Your task to perform on an android device: check out phone information Image 0: 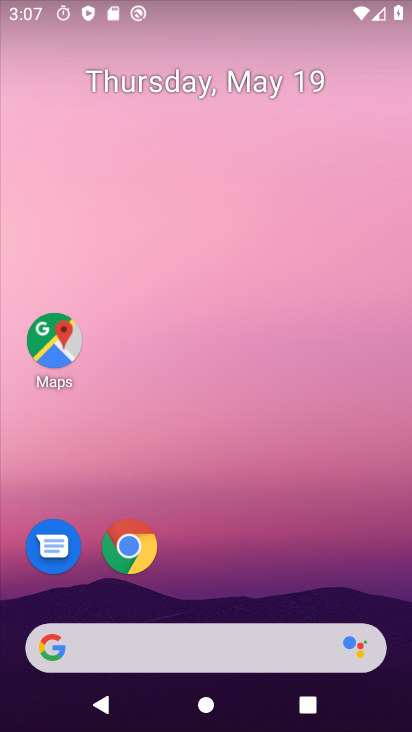
Step 0: drag from (225, 586) to (275, 64)
Your task to perform on an android device: check out phone information Image 1: 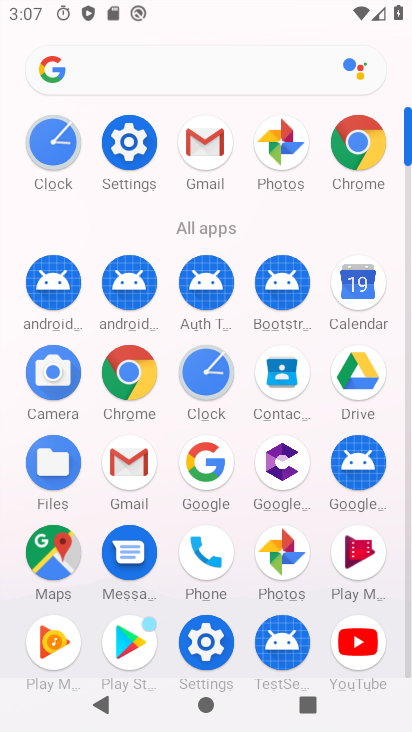
Step 1: click (127, 137)
Your task to perform on an android device: check out phone information Image 2: 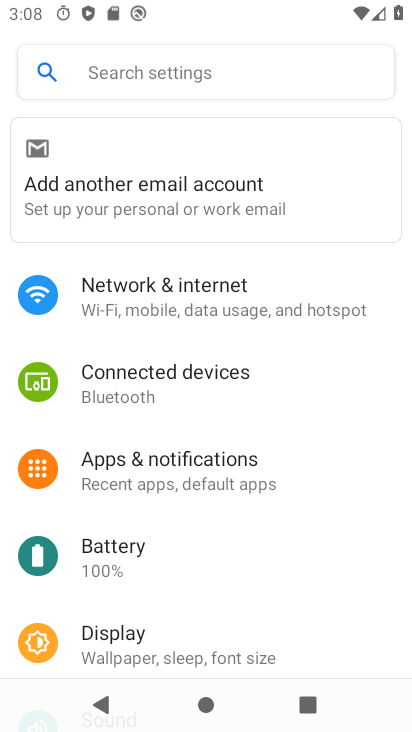
Step 2: drag from (189, 626) to (242, 61)
Your task to perform on an android device: check out phone information Image 3: 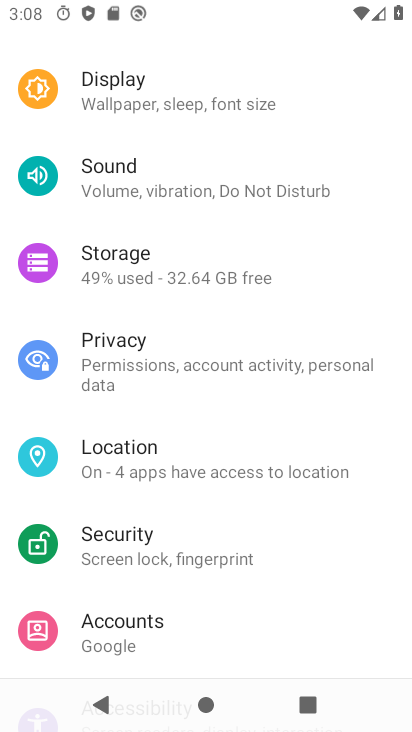
Step 3: drag from (196, 636) to (177, 112)
Your task to perform on an android device: check out phone information Image 4: 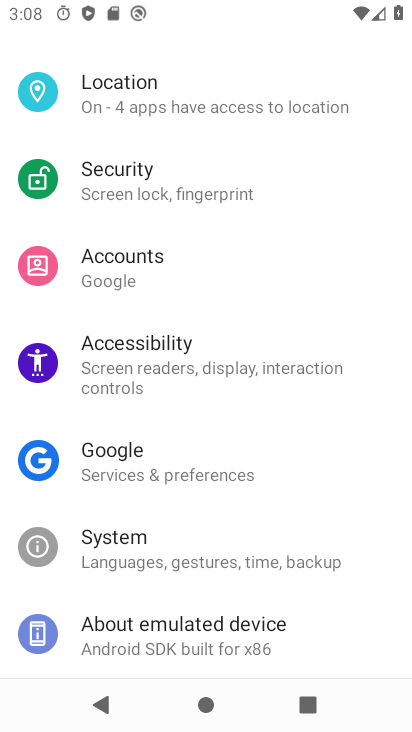
Step 4: click (292, 633)
Your task to perform on an android device: check out phone information Image 5: 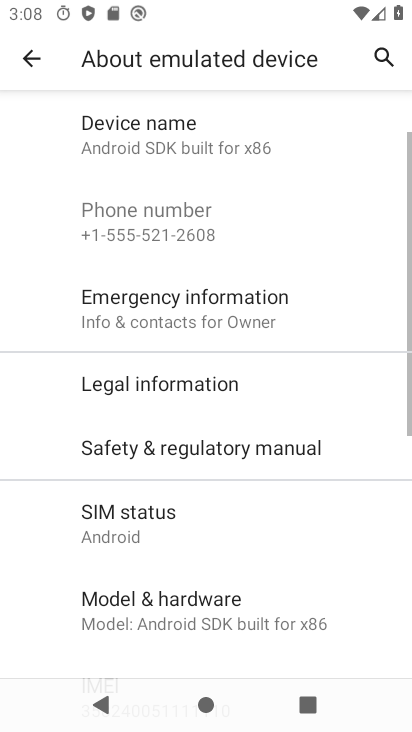
Step 5: task complete